Your task to perform on an android device: open a new tab in the chrome app Image 0: 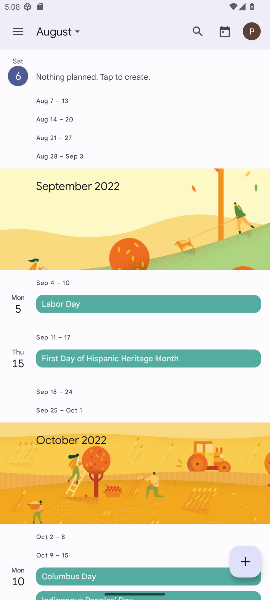
Step 0: press home button
Your task to perform on an android device: open a new tab in the chrome app Image 1: 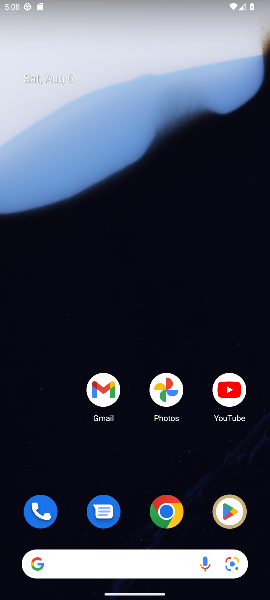
Step 1: click (165, 510)
Your task to perform on an android device: open a new tab in the chrome app Image 2: 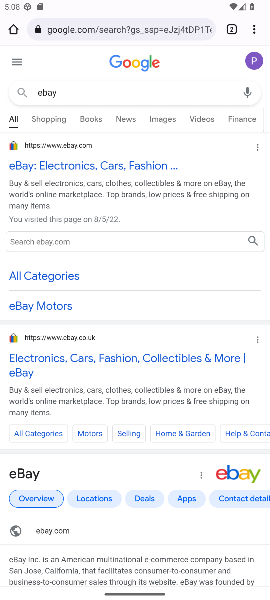
Step 2: click (254, 22)
Your task to perform on an android device: open a new tab in the chrome app Image 3: 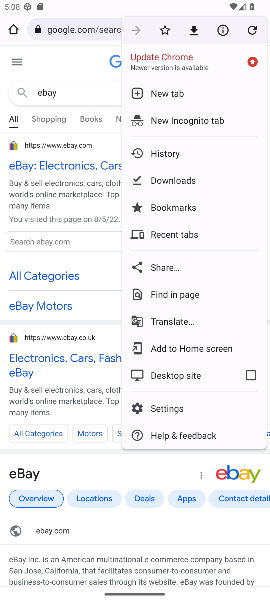
Step 3: click (181, 95)
Your task to perform on an android device: open a new tab in the chrome app Image 4: 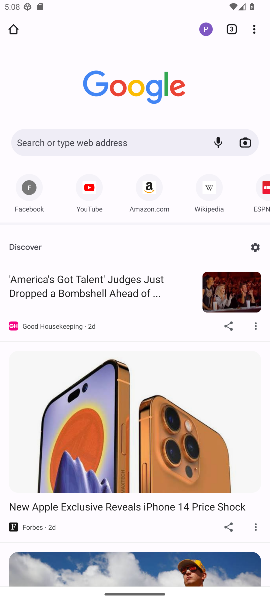
Step 4: task complete